Your task to perform on an android device: Open the calendar app, open the side menu, and click the "Day" option Image 0: 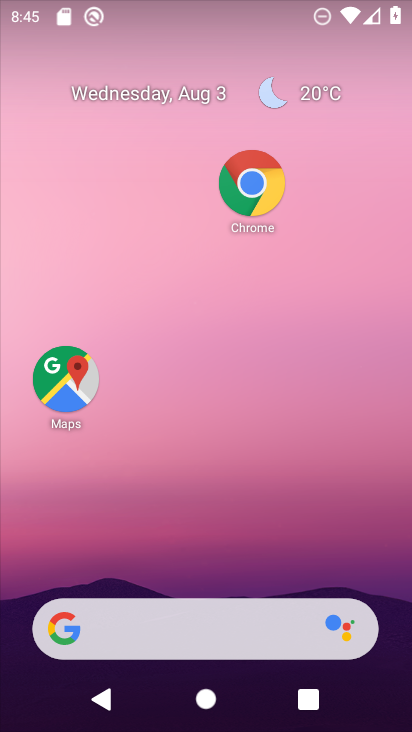
Step 0: drag from (170, 522) to (170, 94)
Your task to perform on an android device: Open the calendar app, open the side menu, and click the "Day" option Image 1: 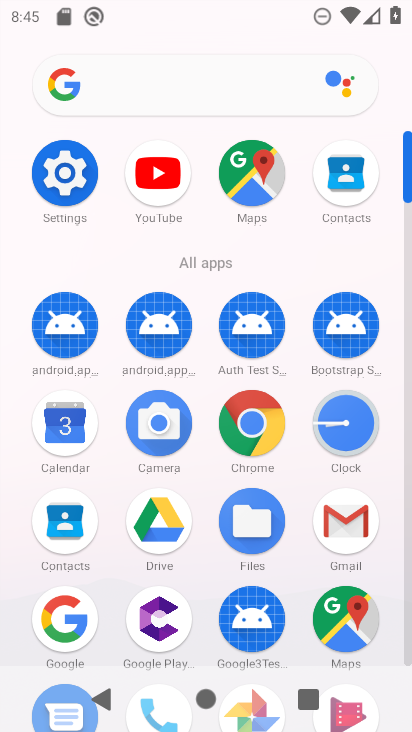
Step 1: click (65, 440)
Your task to perform on an android device: Open the calendar app, open the side menu, and click the "Day" option Image 2: 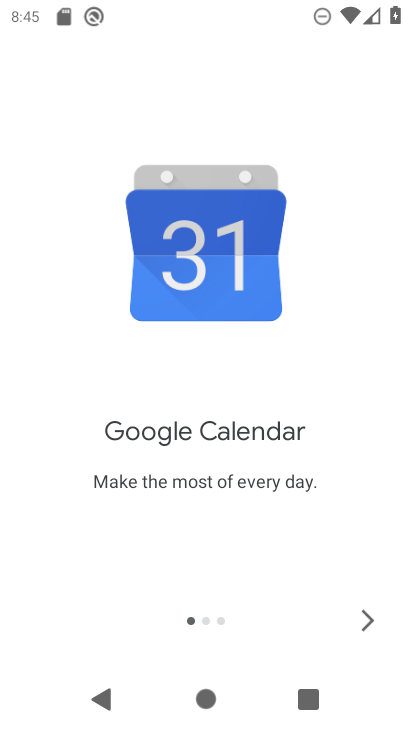
Step 2: click (368, 617)
Your task to perform on an android device: Open the calendar app, open the side menu, and click the "Day" option Image 3: 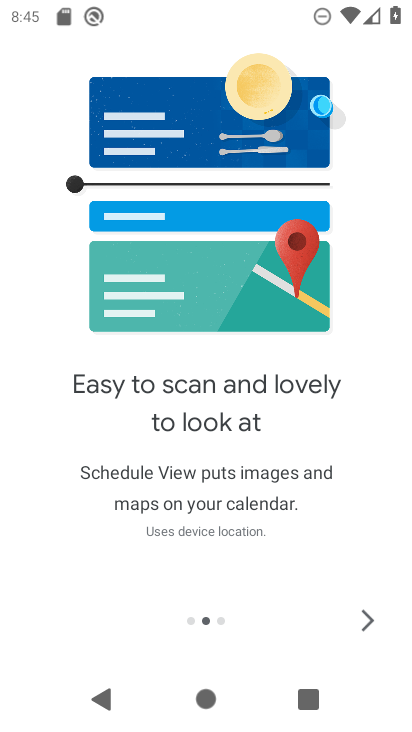
Step 3: click (368, 617)
Your task to perform on an android device: Open the calendar app, open the side menu, and click the "Day" option Image 4: 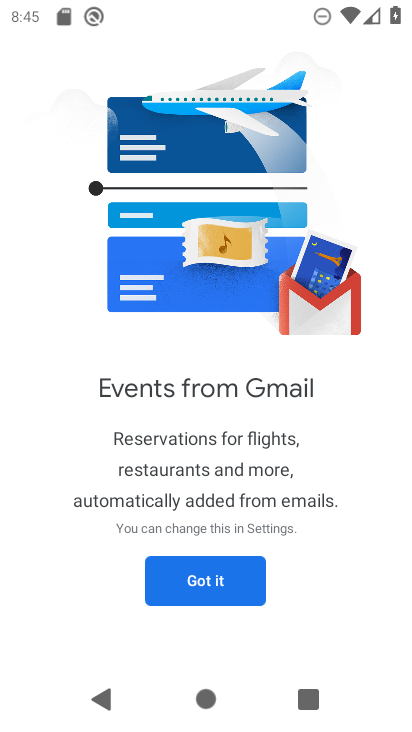
Step 4: click (194, 576)
Your task to perform on an android device: Open the calendar app, open the side menu, and click the "Day" option Image 5: 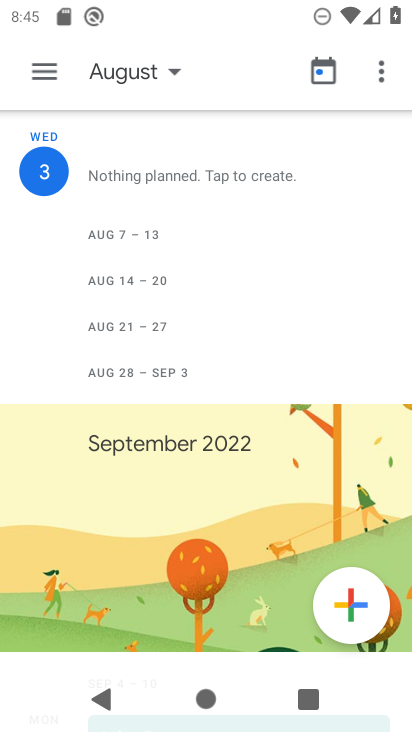
Step 5: click (36, 75)
Your task to perform on an android device: Open the calendar app, open the side menu, and click the "Day" option Image 6: 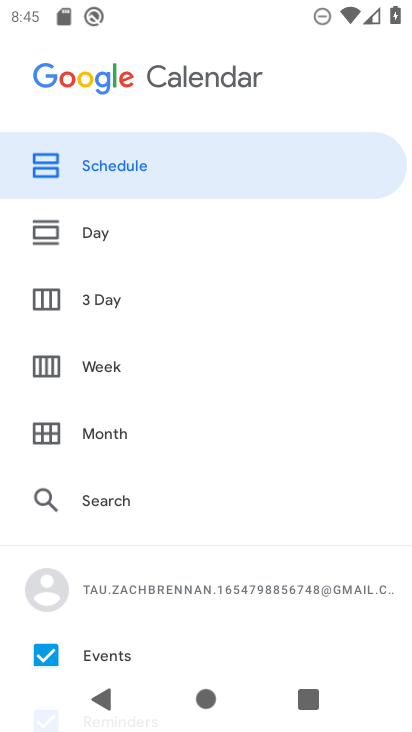
Step 6: click (104, 233)
Your task to perform on an android device: Open the calendar app, open the side menu, and click the "Day" option Image 7: 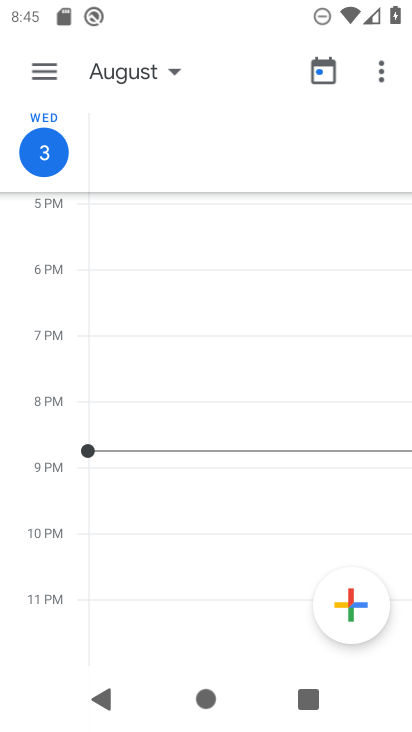
Step 7: task complete